Your task to perform on an android device: Search for flights from Sydney to Helsinki Image 0: 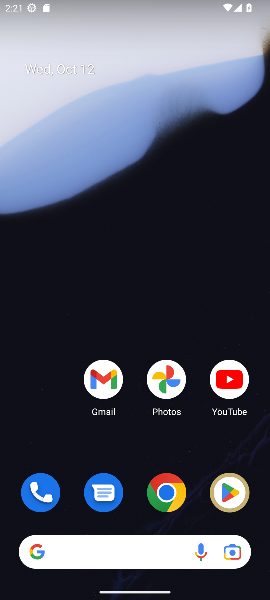
Step 0: click (162, 496)
Your task to perform on an android device: Search for flights from Sydney to Helsinki Image 1: 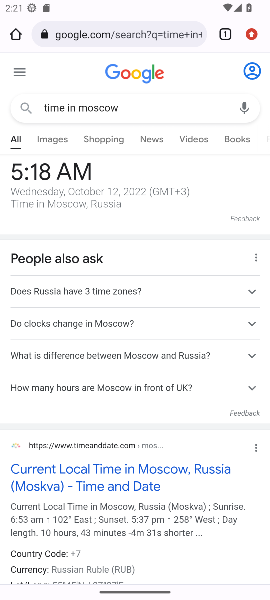
Step 1: click (118, 104)
Your task to perform on an android device: Search for flights from Sydney to Helsinki Image 2: 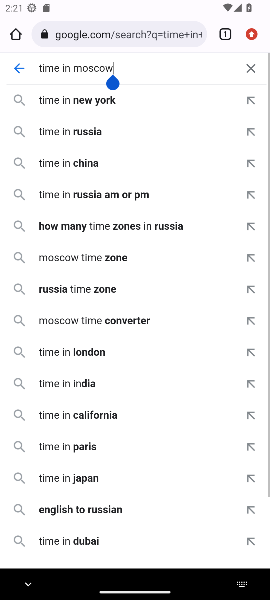
Step 2: click (254, 74)
Your task to perform on an android device: Search for flights from Sydney to Helsinki Image 3: 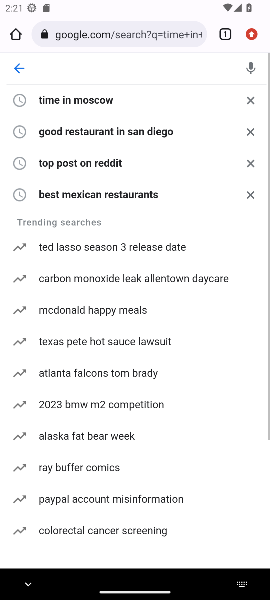
Step 3: type " Sydney to Helsinki flights"
Your task to perform on an android device: Search for flights from Sydney to Helsinki Image 4: 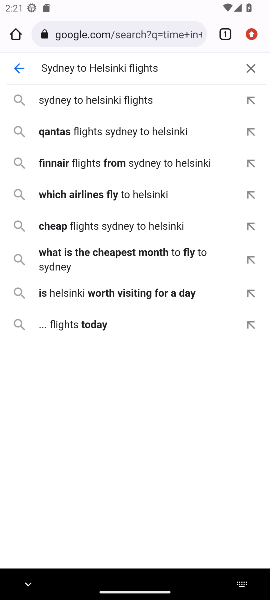
Step 4: click (100, 71)
Your task to perform on an android device: Search for flights from Sydney to Helsinki Image 5: 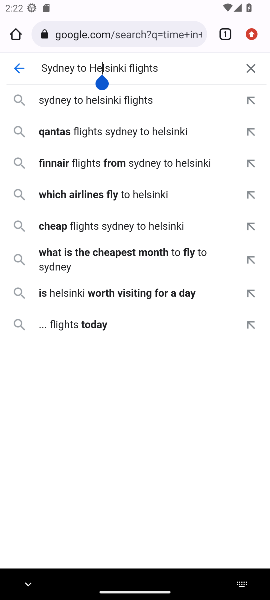
Step 5: click (132, 100)
Your task to perform on an android device: Search for flights from Sydney to Helsinki Image 6: 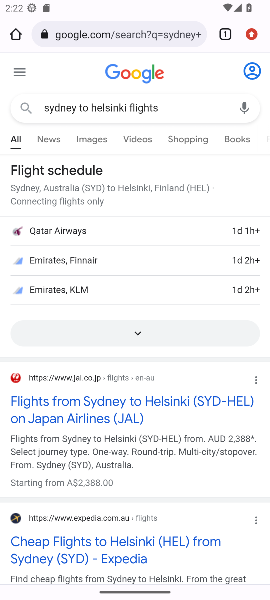
Step 6: drag from (131, 280) to (129, 168)
Your task to perform on an android device: Search for flights from Sydney to Helsinki Image 7: 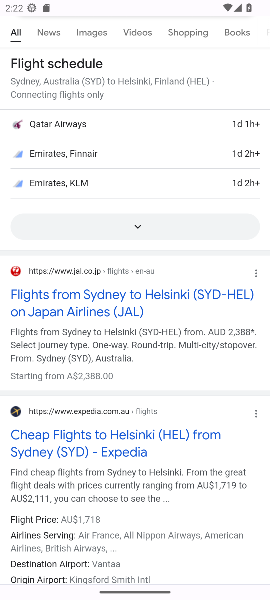
Step 7: click (137, 228)
Your task to perform on an android device: Search for flights from Sydney to Helsinki Image 8: 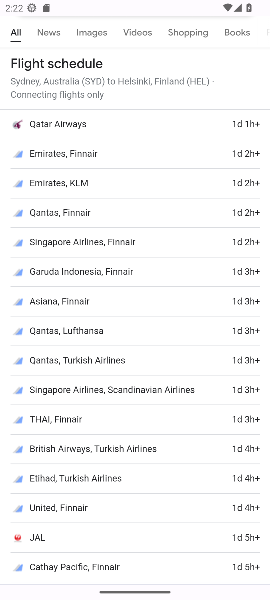
Step 8: task complete